Your task to perform on an android device: View the shopping cart on walmart.com. Image 0: 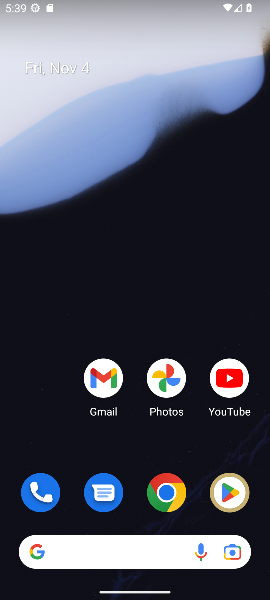
Step 0: drag from (132, 462) to (128, 107)
Your task to perform on an android device: View the shopping cart on walmart.com. Image 1: 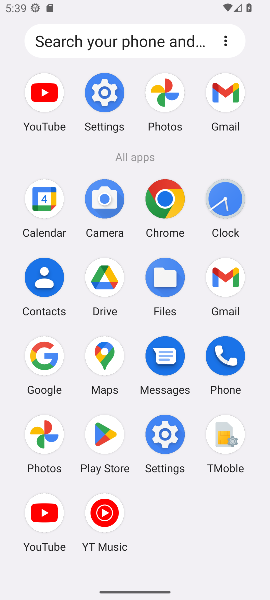
Step 1: click (159, 198)
Your task to perform on an android device: View the shopping cart on walmart.com. Image 2: 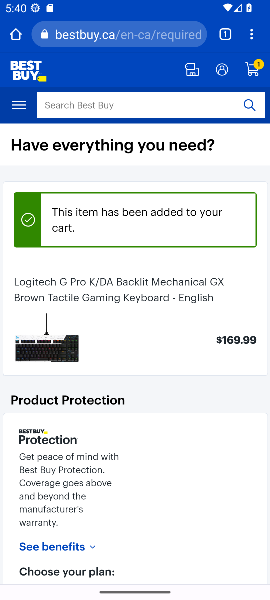
Step 2: click (107, 40)
Your task to perform on an android device: View the shopping cart on walmart.com. Image 3: 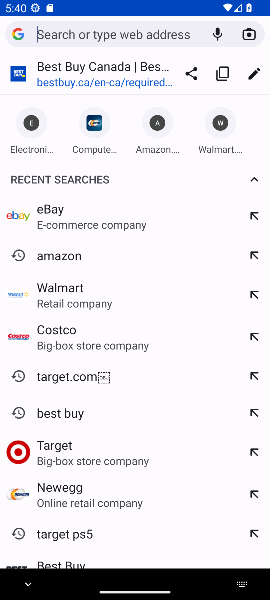
Step 3: type "walmart.com"
Your task to perform on an android device: View the shopping cart on walmart.com. Image 4: 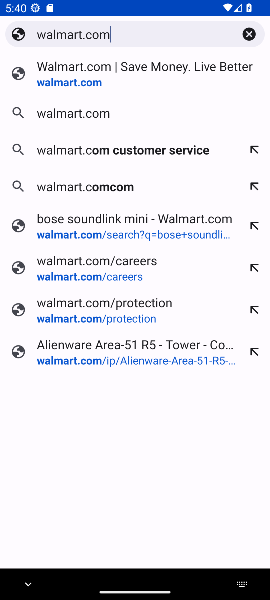
Step 4: press enter
Your task to perform on an android device: View the shopping cart on walmart.com. Image 5: 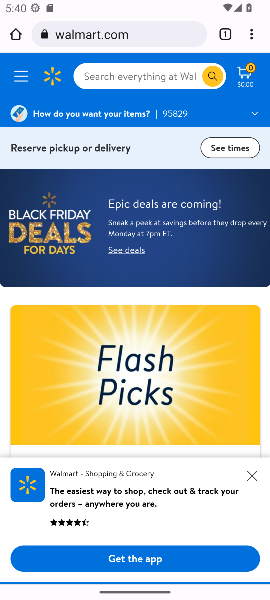
Step 5: click (247, 74)
Your task to perform on an android device: View the shopping cart on walmart.com. Image 6: 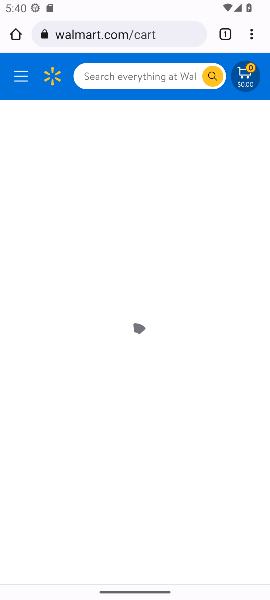
Step 6: click (203, 263)
Your task to perform on an android device: View the shopping cart on walmart.com. Image 7: 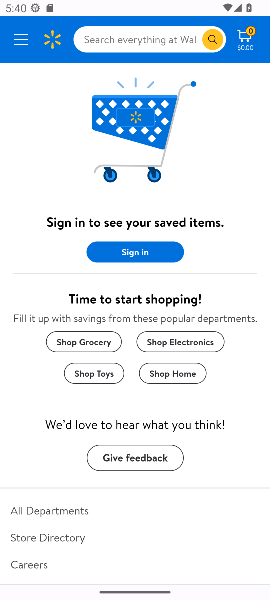
Step 7: task complete